Your task to perform on an android device: Search for pizza restaurants on Maps Image 0: 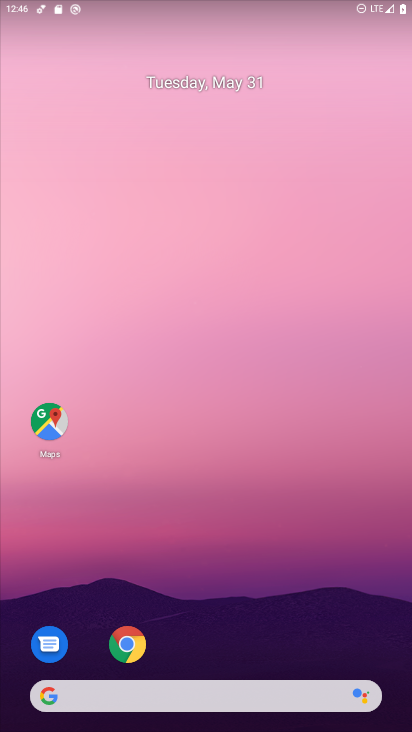
Step 0: drag from (177, 635) to (199, 167)
Your task to perform on an android device: Search for pizza restaurants on Maps Image 1: 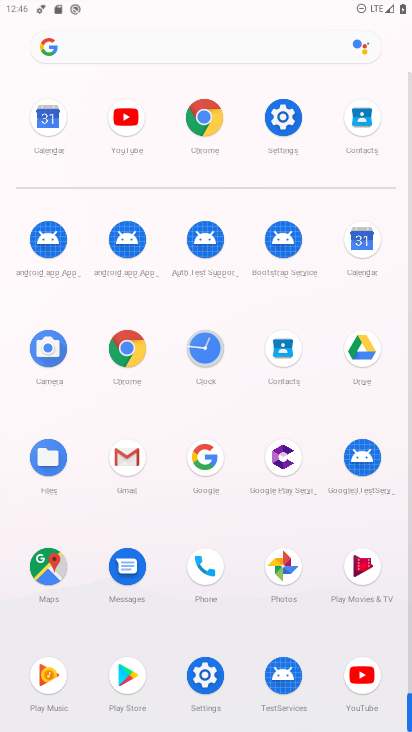
Step 1: click (45, 571)
Your task to perform on an android device: Search for pizza restaurants on Maps Image 2: 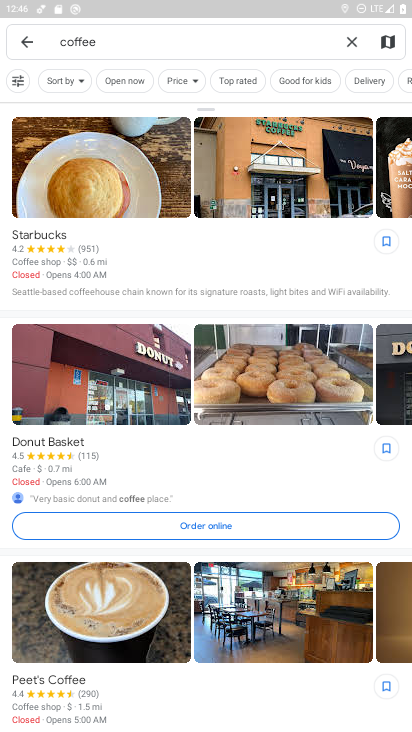
Step 2: drag from (203, 240) to (320, 541)
Your task to perform on an android device: Search for pizza restaurants on Maps Image 3: 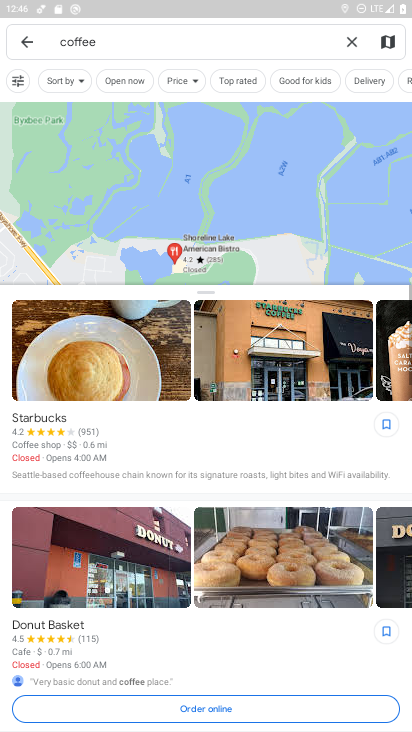
Step 3: click (349, 34)
Your task to perform on an android device: Search for pizza restaurants on Maps Image 4: 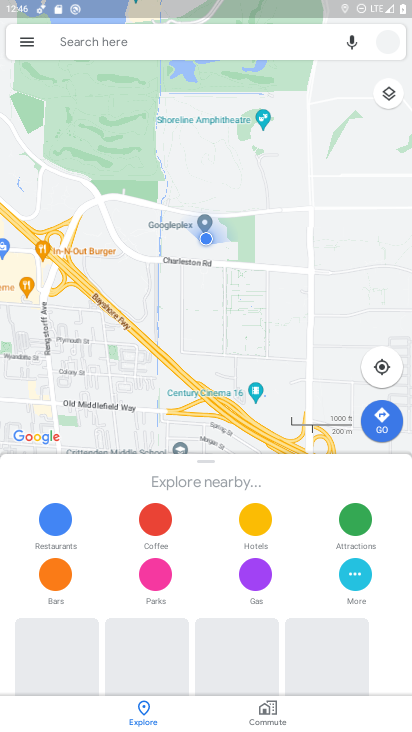
Step 4: click (86, 44)
Your task to perform on an android device: Search for pizza restaurants on Maps Image 5: 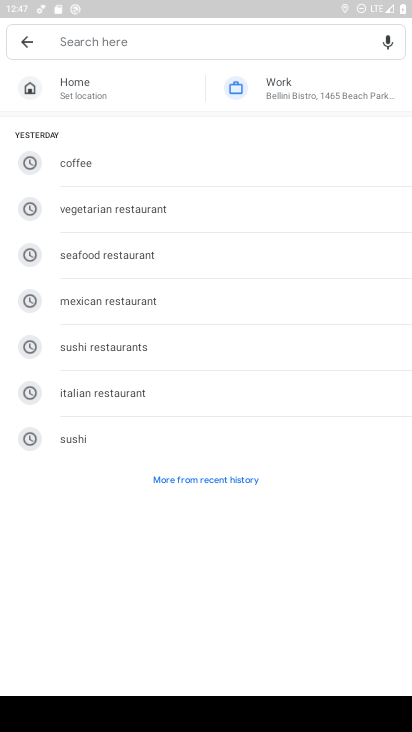
Step 5: type "pizza"
Your task to perform on an android device: Search for pizza restaurants on Maps Image 6: 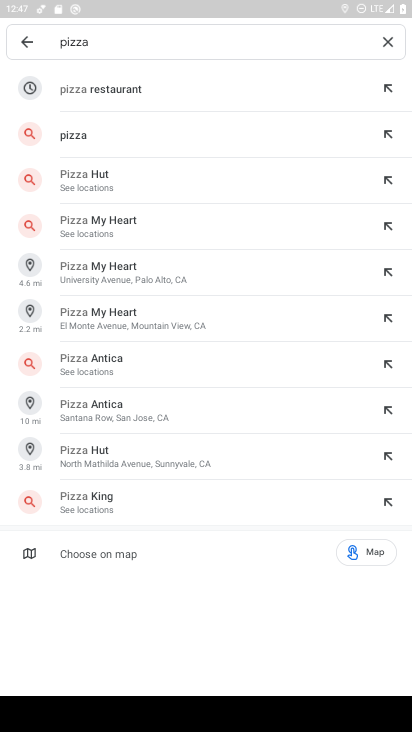
Step 6: drag from (181, 507) to (292, 138)
Your task to perform on an android device: Search for pizza restaurants on Maps Image 7: 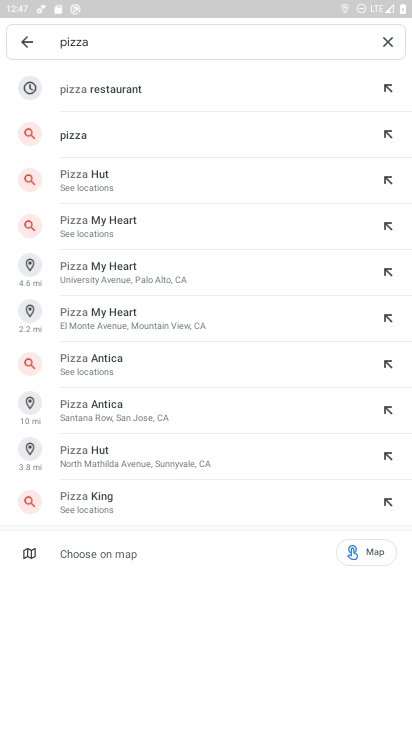
Step 7: drag from (297, 108) to (286, 651)
Your task to perform on an android device: Search for pizza restaurants on Maps Image 8: 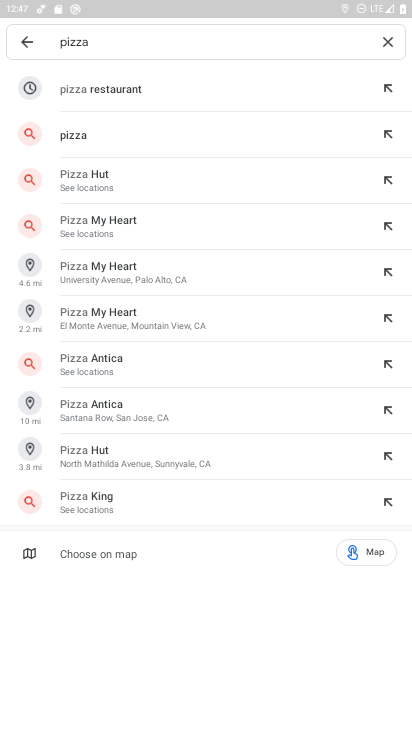
Step 8: click (146, 108)
Your task to perform on an android device: Search for pizza restaurants on Maps Image 9: 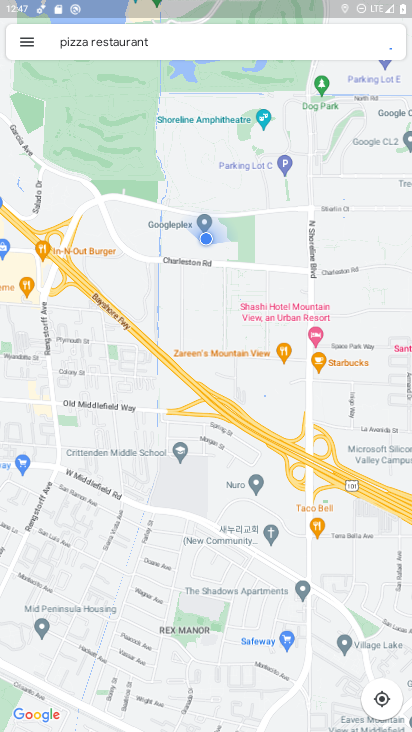
Step 9: task complete